Your task to perform on an android device: see creations saved in the google photos Image 0: 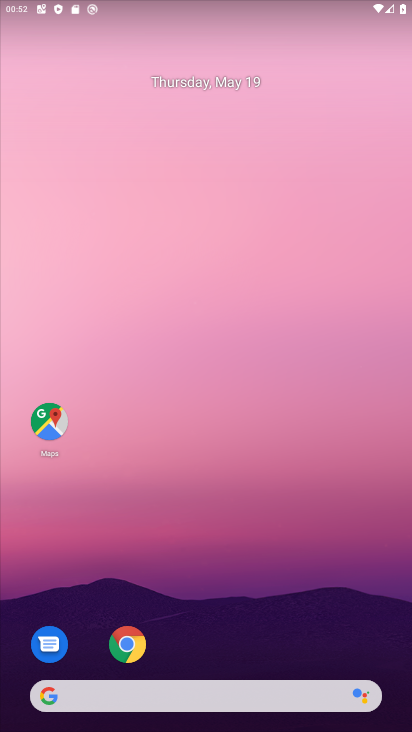
Step 0: drag from (313, 607) to (321, 216)
Your task to perform on an android device: see creations saved in the google photos Image 1: 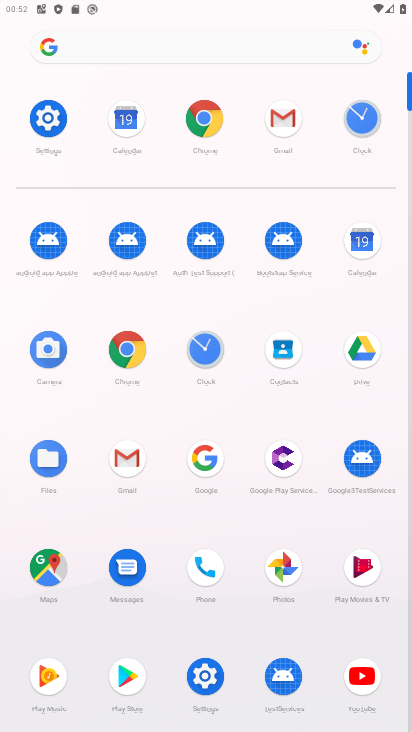
Step 1: click (286, 565)
Your task to perform on an android device: see creations saved in the google photos Image 2: 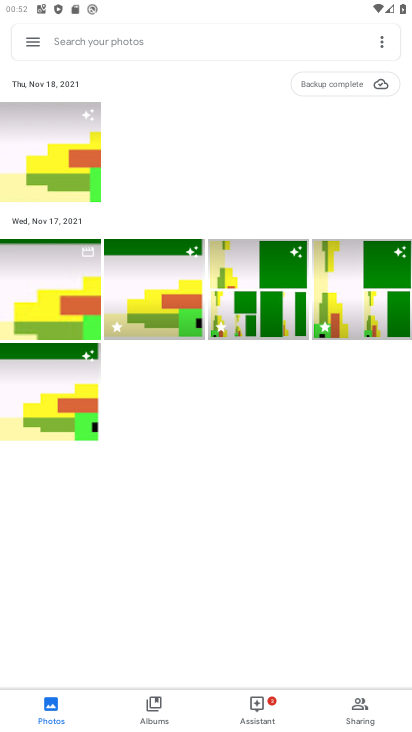
Step 2: click (148, 44)
Your task to perform on an android device: see creations saved in the google photos Image 3: 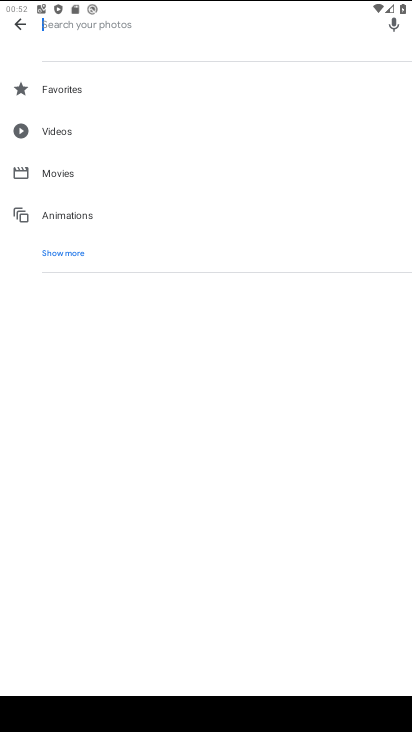
Step 3: type "creations "
Your task to perform on an android device: see creations saved in the google photos Image 4: 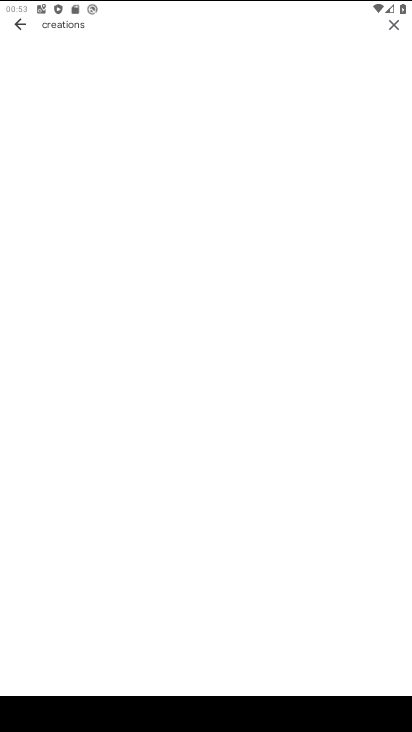
Step 4: task complete